Your task to perform on an android device: move a message to another label in the gmail app Image 0: 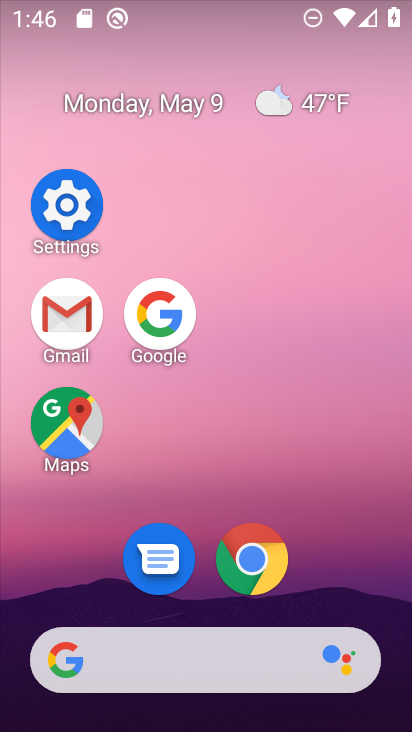
Step 0: click (85, 326)
Your task to perform on an android device: move a message to another label in the gmail app Image 1: 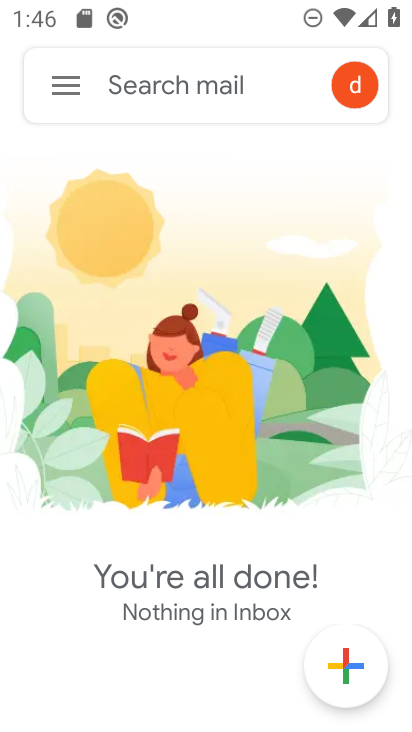
Step 1: click (62, 89)
Your task to perform on an android device: move a message to another label in the gmail app Image 2: 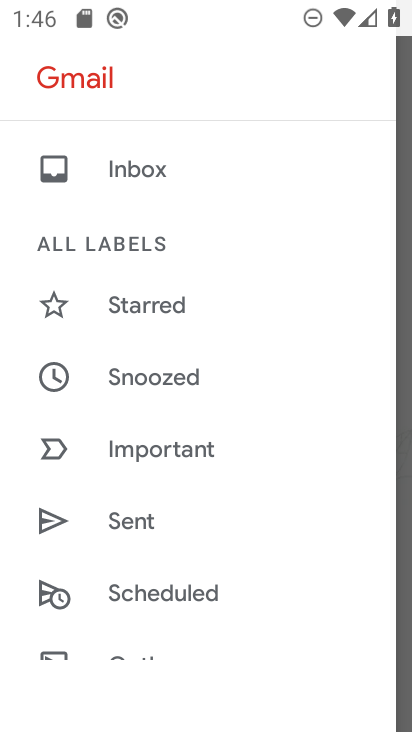
Step 2: drag from (214, 600) to (220, 277)
Your task to perform on an android device: move a message to another label in the gmail app Image 3: 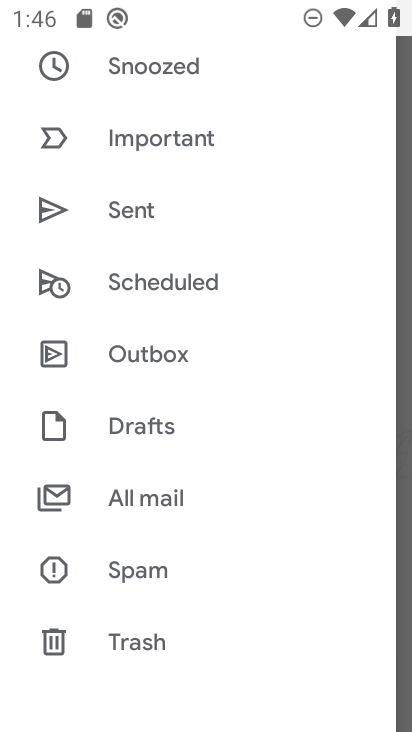
Step 3: drag from (284, 612) to (315, 277)
Your task to perform on an android device: move a message to another label in the gmail app Image 4: 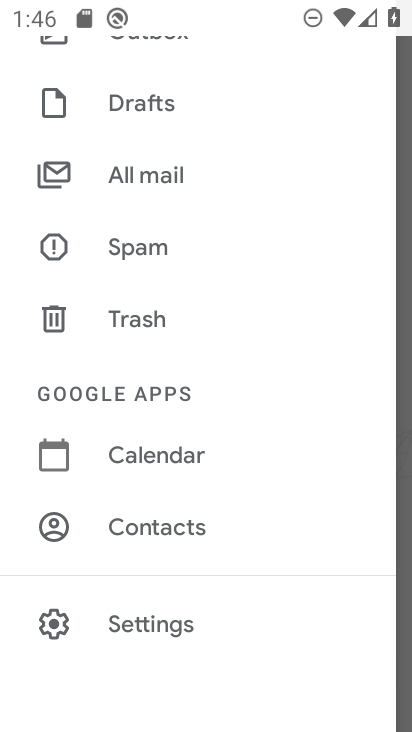
Step 4: click (165, 190)
Your task to perform on an android device: move a message to another label in the gmail app Image 5: 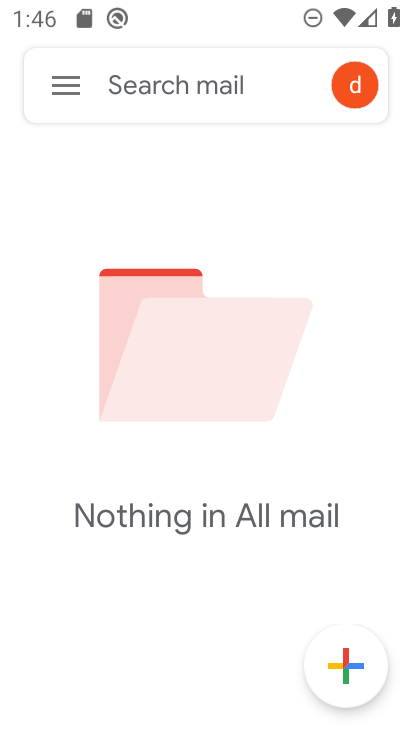
Step 5: task complete